Your task to perform on an android device: add a label to a message in the gmail app Image 0: 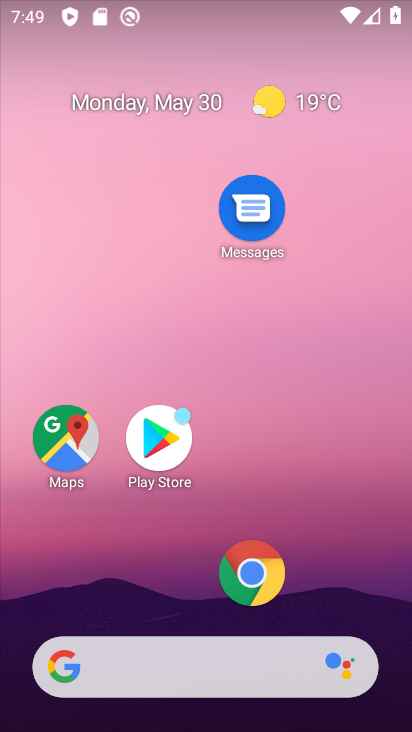
Step 0: drag from (178, 571) to (195, 412)
Your task to perform on an android device: add a label to a message in the gmail app Image 1: 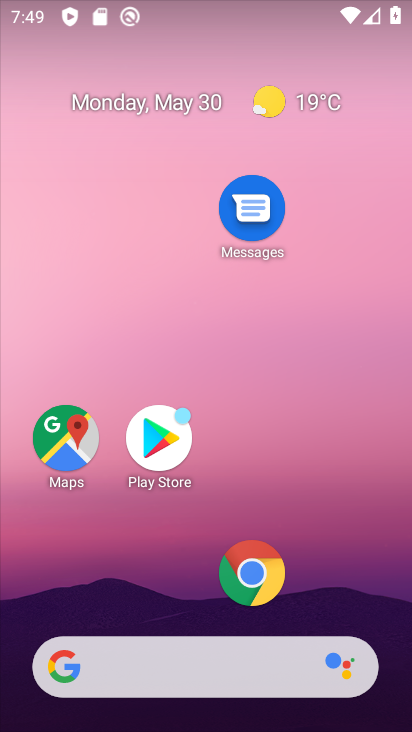
Step 1: drag from (171, 579) to (180, 253)
Your task to perform on an android device: add a label to a message in the gmail app Image 2: 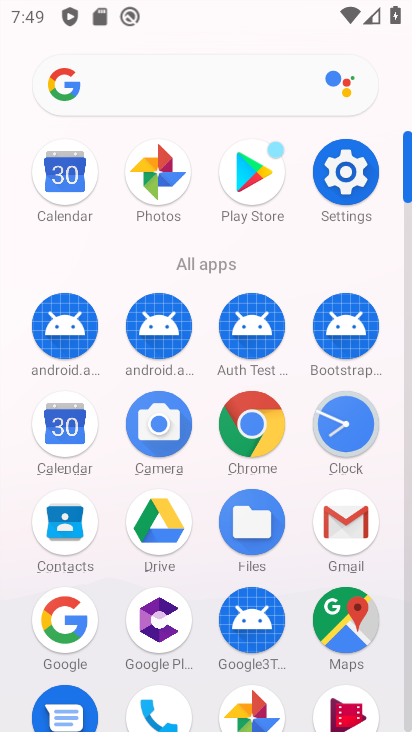
Step 2: click (359, 539)
Your task to perform on an android device: add a label to a message in the gmail app Image 3: 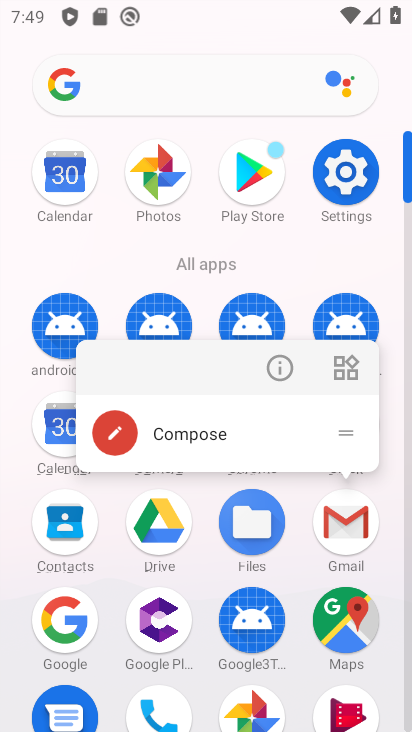
Step 3: click (347, 527)
Your task to perform on an android device: add a label to a message in the gmail app Image 4: 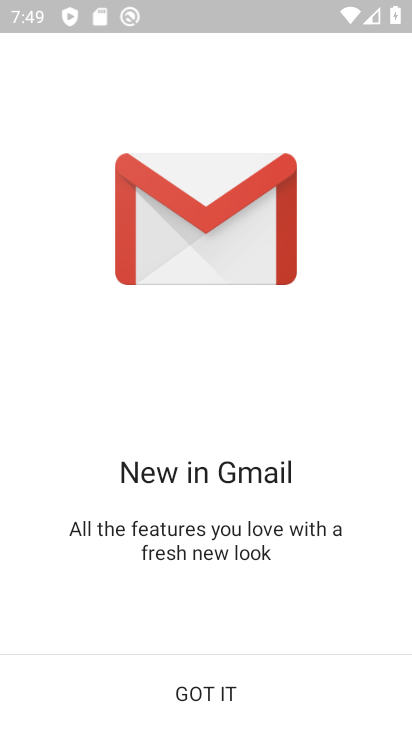
Step 4: click (273, 676)
Your task to perform on an android device: add a label to a message in the gmail app Image 5: 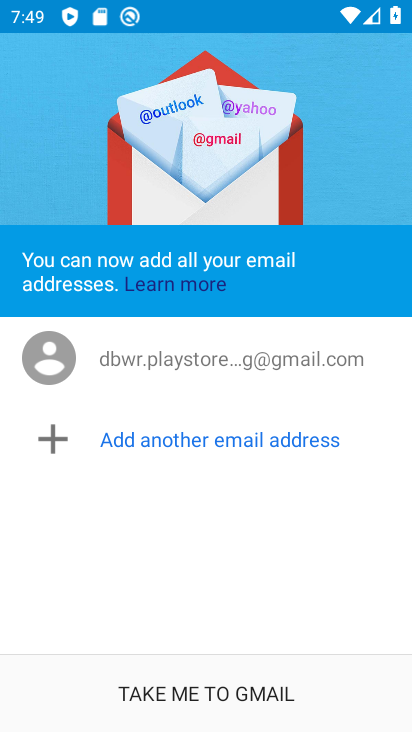
Step 5: click (272, 677)
Your task to perform on an android device: add a label to a message in the gmail app Image 6: 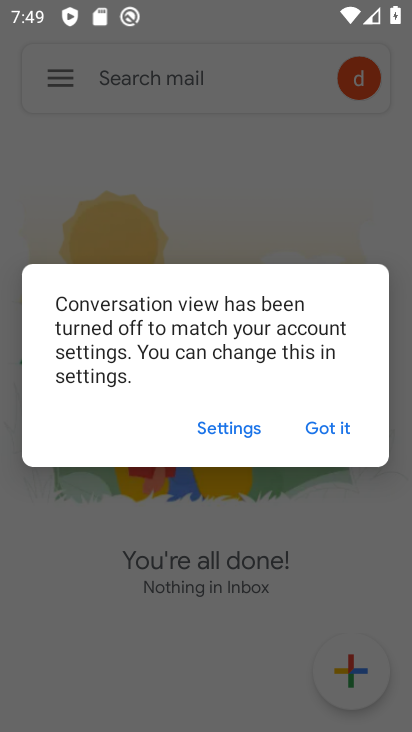
Step 6: click (326, 439)
Your task to perform on an android device: add a label to a message in the gmail app Image 7: 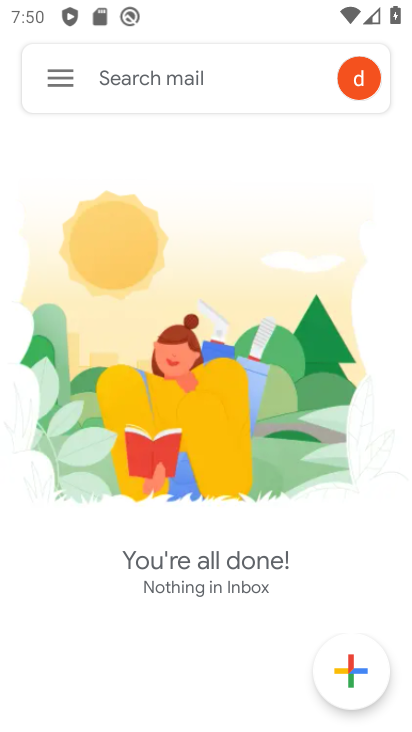
Step 7: task complete